Your task to perform on an android device: change notifications settings Image 0: 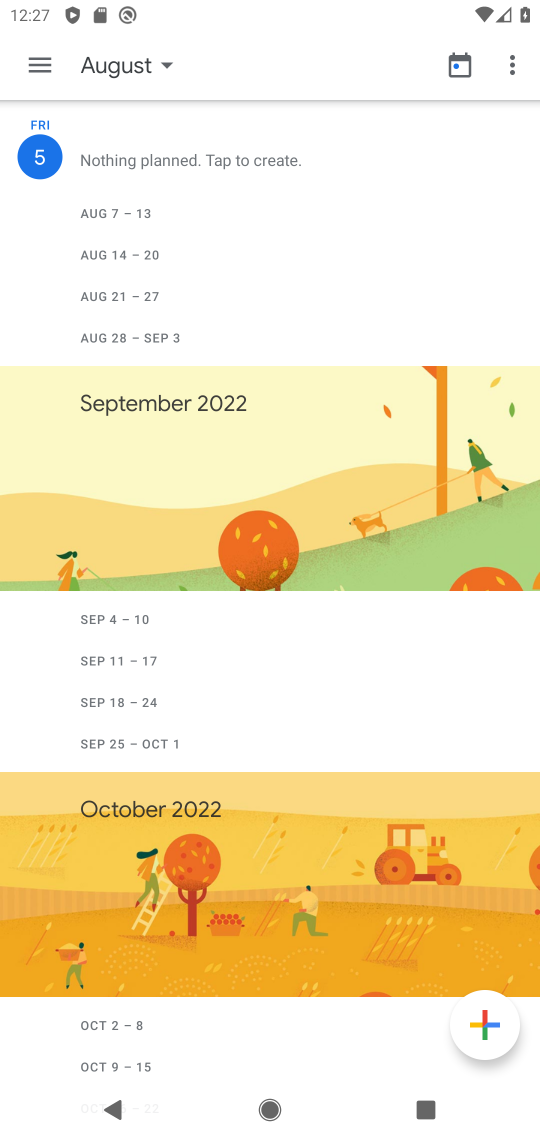
Step 0: press home button
Your task to perform on an android device: change notifications settings Image 1: 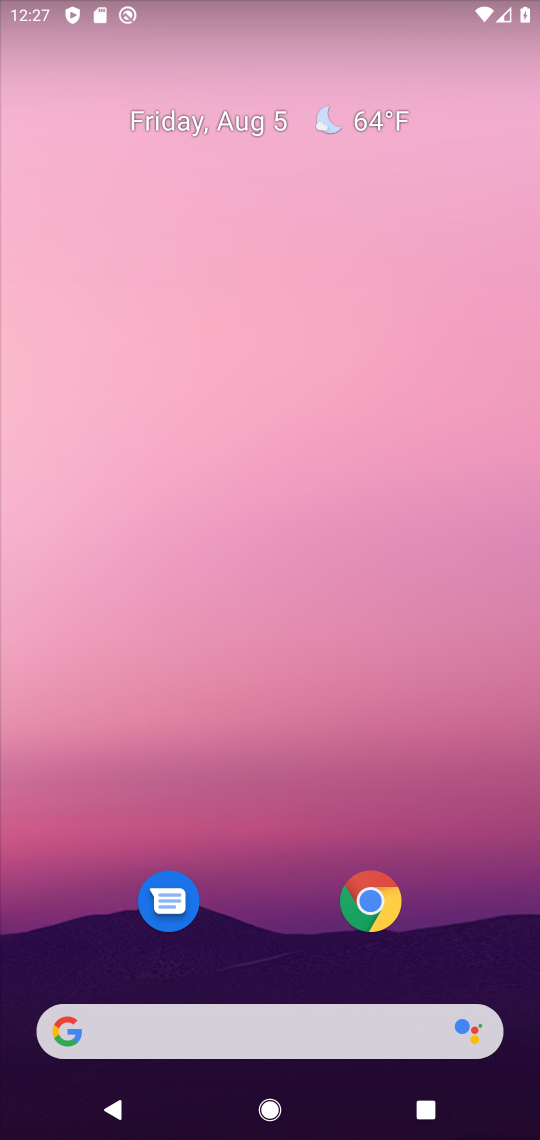
Step 1: drag from (241, 906) to (190, 561)
Your task to perform on an android device: change notifications settings Image 2: 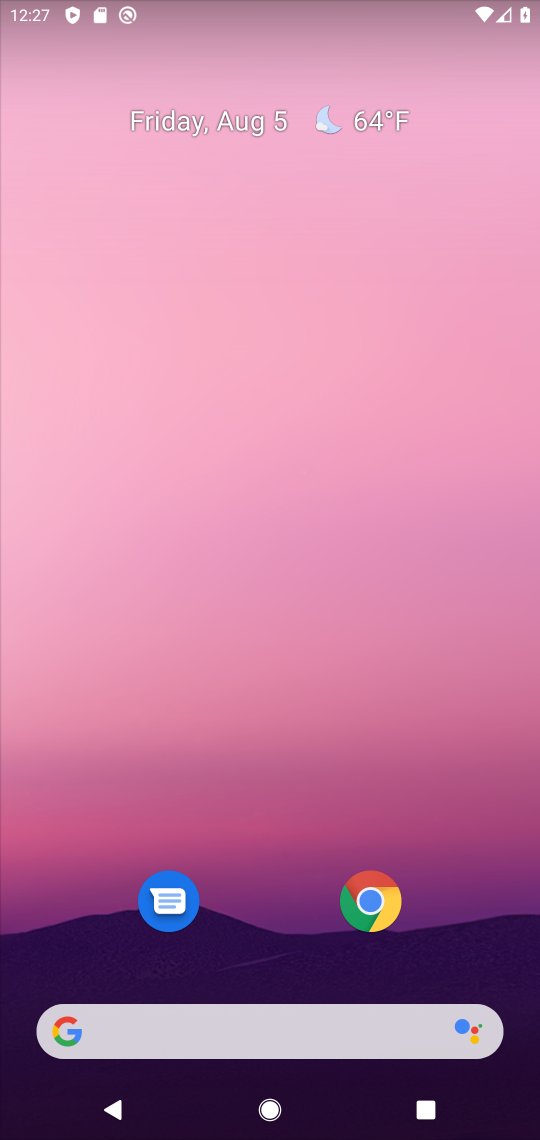
Step 2: drag from (274, 911) to (195, 378)
Your task to perform on an android device: change notifications settings Image 3: 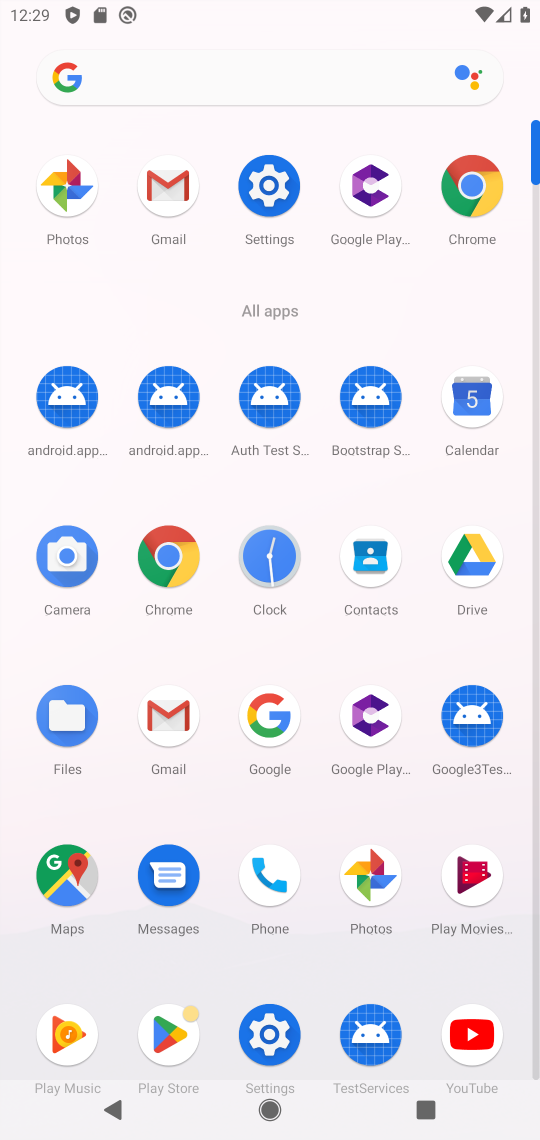
Step 3: click (283, 202)
Your task to perform on an android device: change notifications settings Image 4: 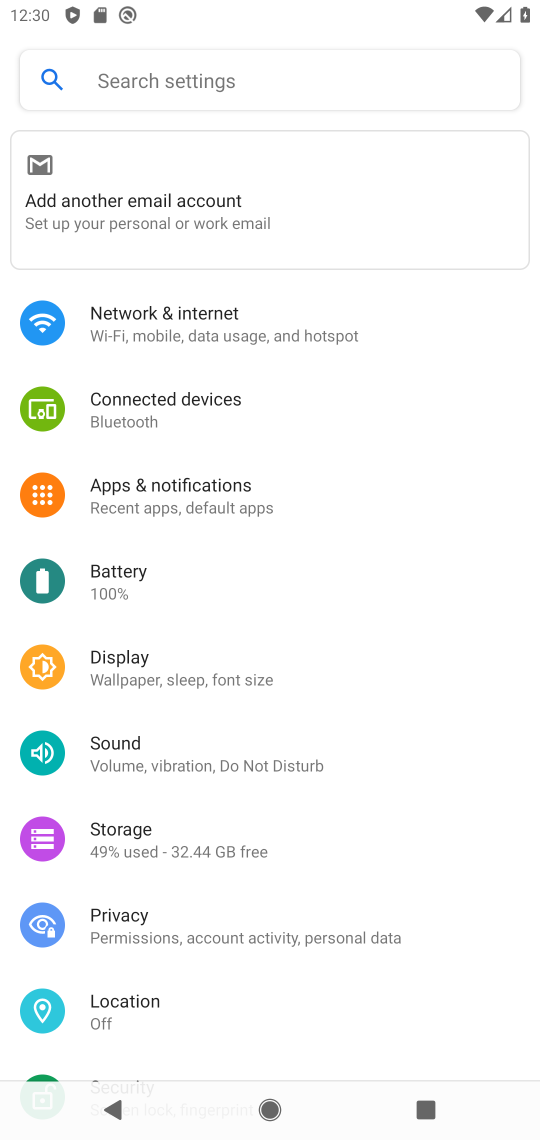
Step 4: click (141, 492)
Your task to perform on an android device: change notifications settings Image 5: 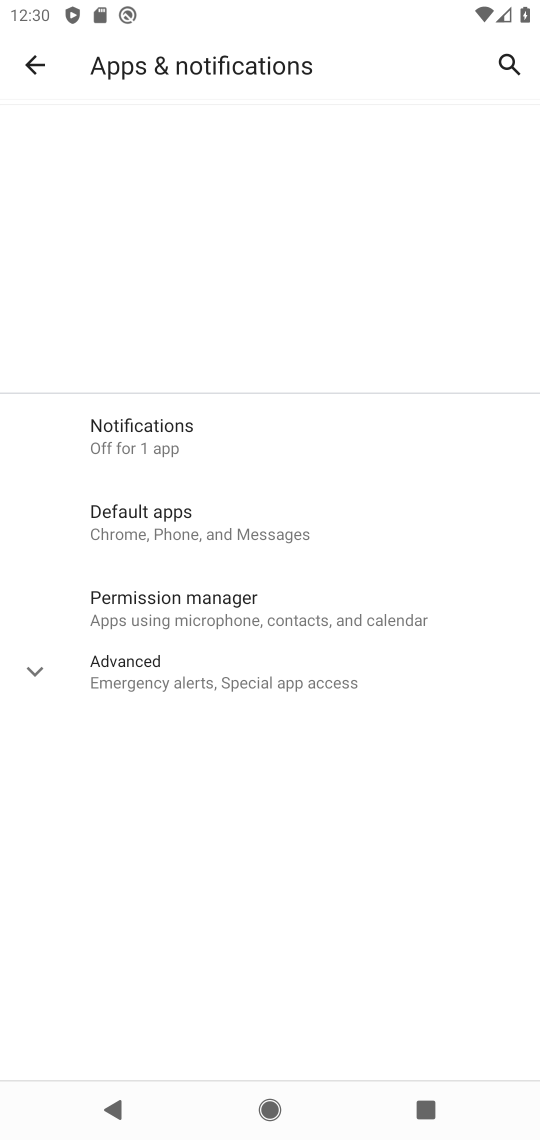
Step 5: click (186, 436)
Your task to perform on an android device: change notifications settings Image 6: 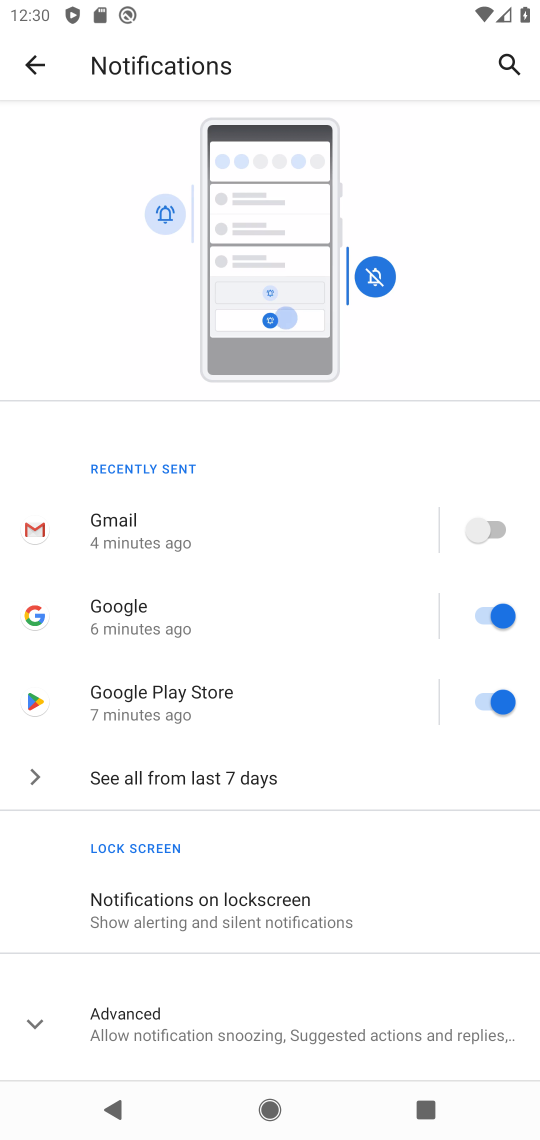
Step 6: click (478, 537)
Your task to perform on an android device: change notifications settings Image 7: 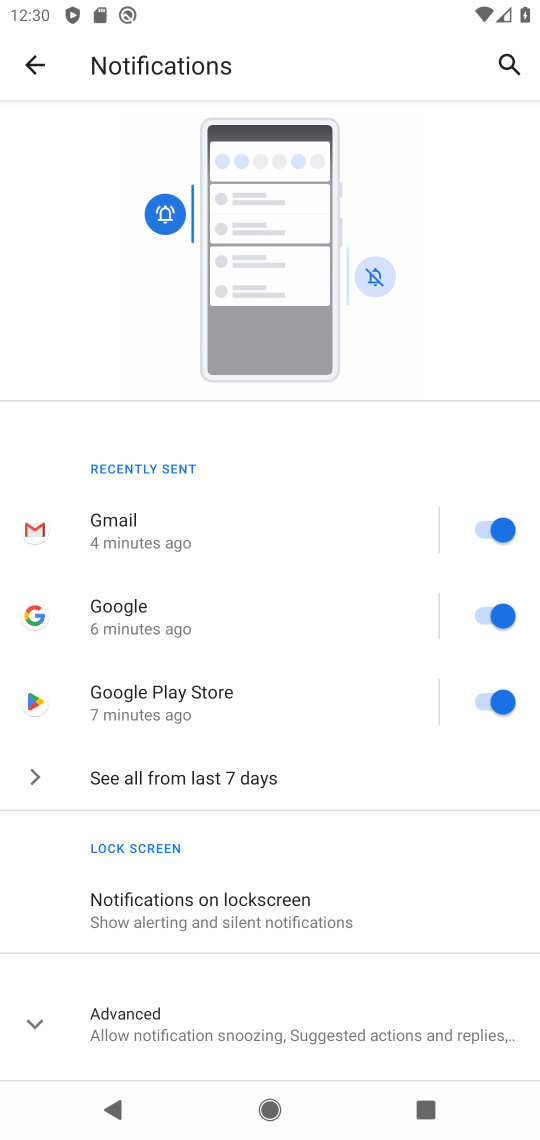
Step 7: task complete